Your task to perform on an android device: Open Youtube and go to "Your channel" Image 0: 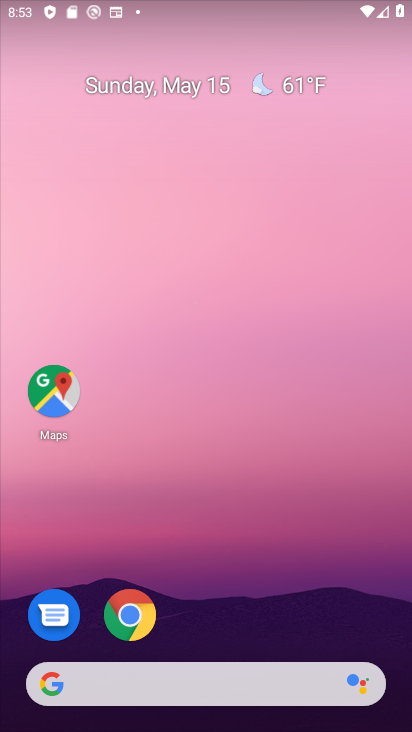
Step 0: drag from (271, 583) to (219, 18)
Your task to perform on an android device: Open Youtube and go to "Your channel" Image 1: 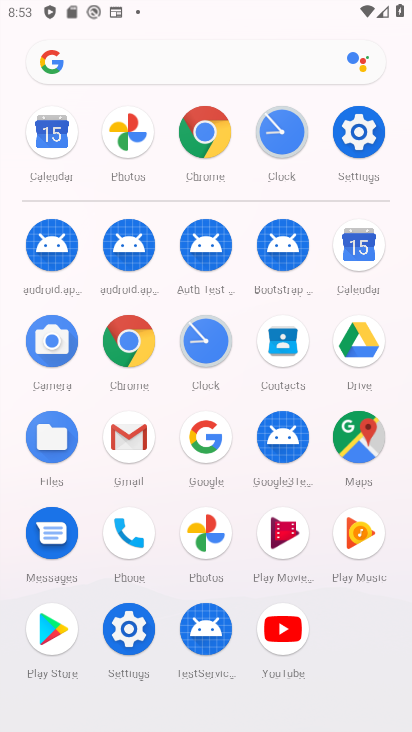
Step 1: drag from (7, 590) to (9, 350)
Your task to perform on an android device: Open Youtube and go to "Your channel" Image 2: 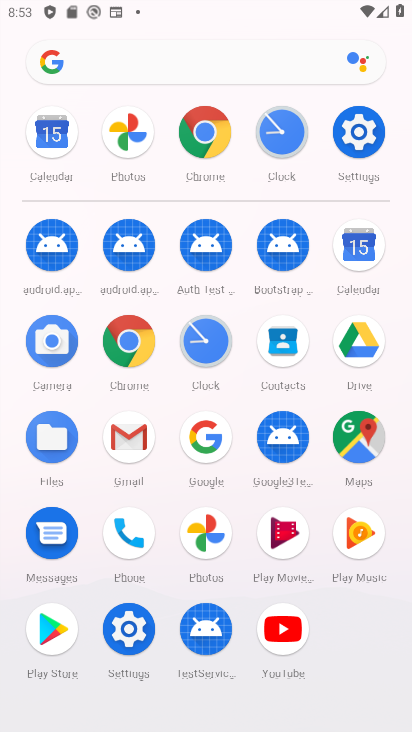
Step 2: click (283, 624)
Your task to perform on an android device: Open Youtube and go to "Your channel" Image 3: 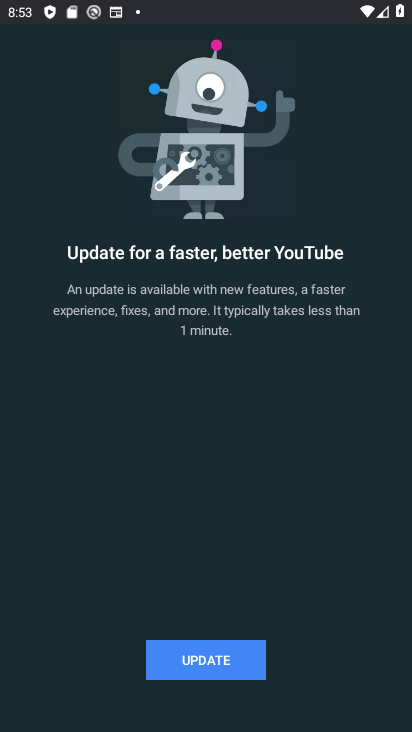
Step 3: click (240, 658)
Your task to perform on an android device: Open Youtube and go to "Your channel" Image 4: 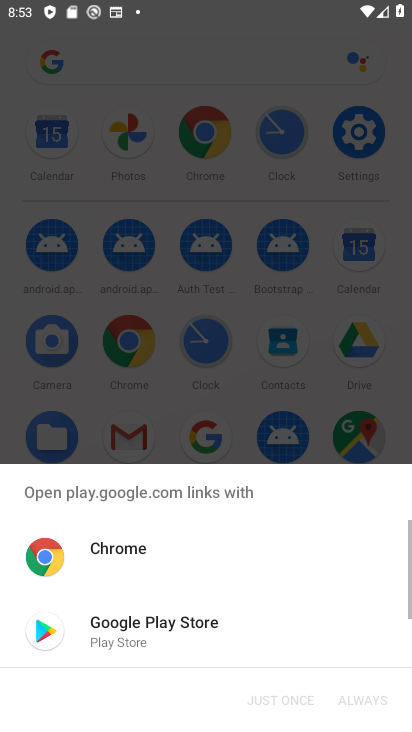
Step 4: click (129, 610)
Your task to perform on an android device: Open Youtube and go to "Your channel" Image 5: 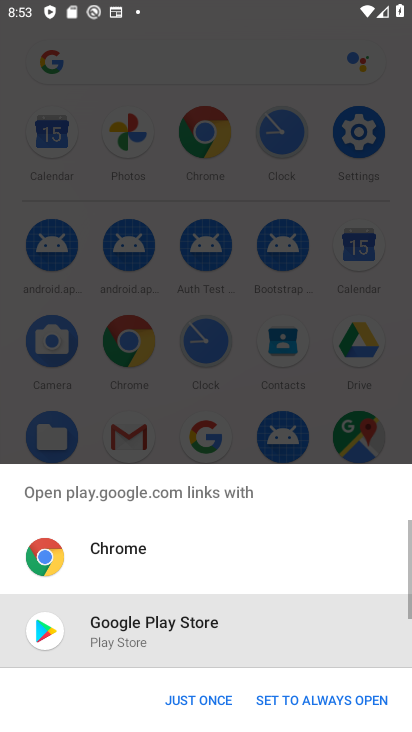
Step 5: click (174, 703)
Your task to perform on an android device: Open Youtube and go to "Your channel" Image 6: 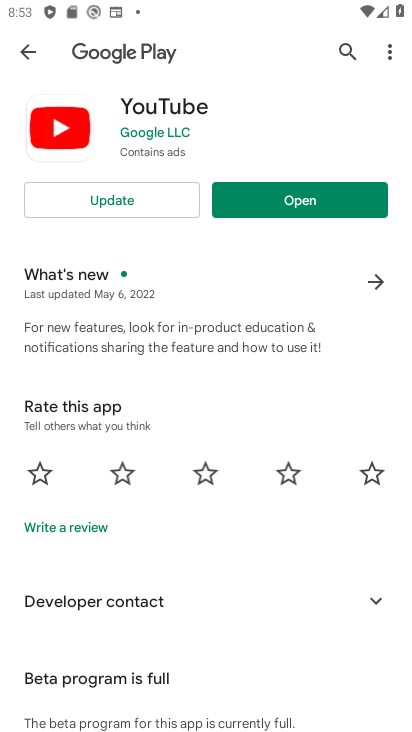
Step 6: click (138, 205)
Your task to perform on an android device: Open Youtube and go to "Your channel" Image 7: 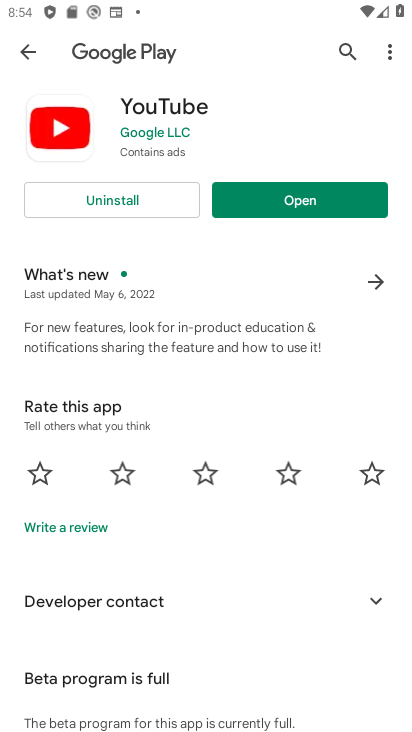
Step 7: click (256, 209)
Your task to perform on an android device: Open Youtube and go to "Your channel" Image 8: 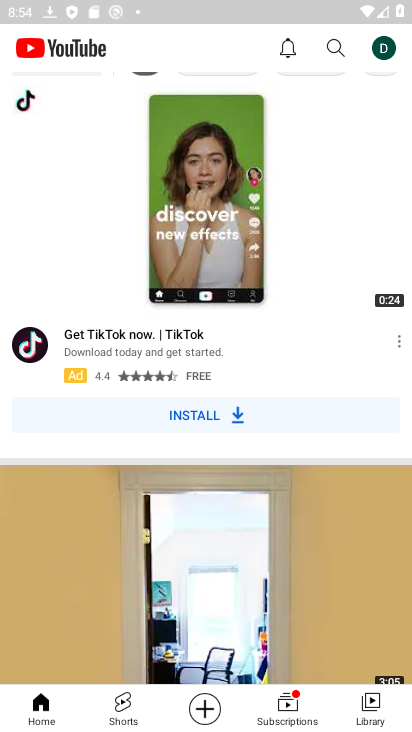
Step 8: click (367, 703)
Your task to perform on an android device: Open Youtube and go to "Your channel" Image 9: 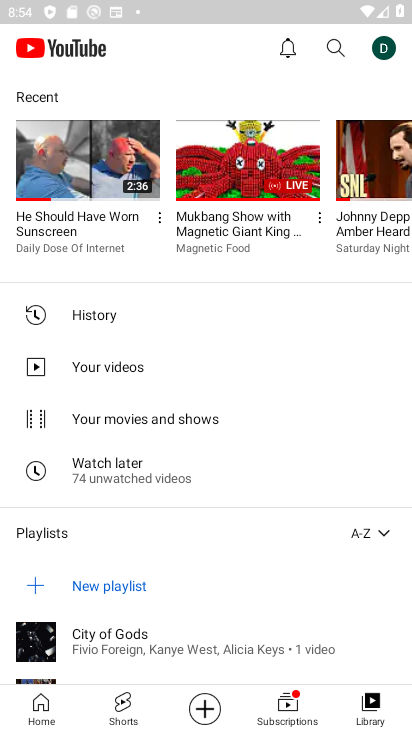
Step 9: click (138, 365)
Your task to perform on an android device: Open Youtube and go to "Your channel" Image 10: 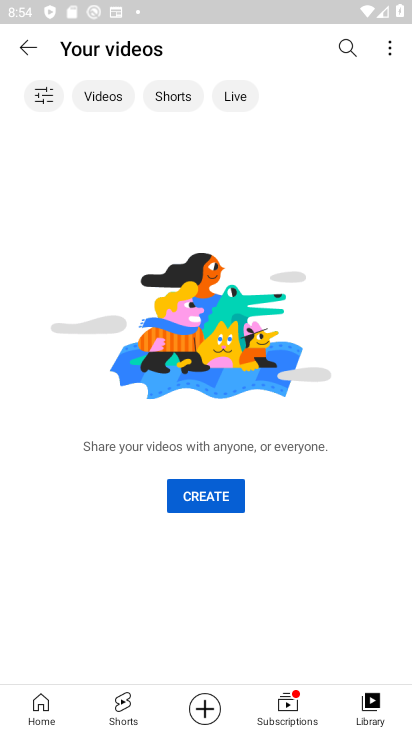
Step 10: drag from (298, 498) to (319, 219)
Your task to perform on an android device: Open Youtube and go to "Your channel" Image 11: 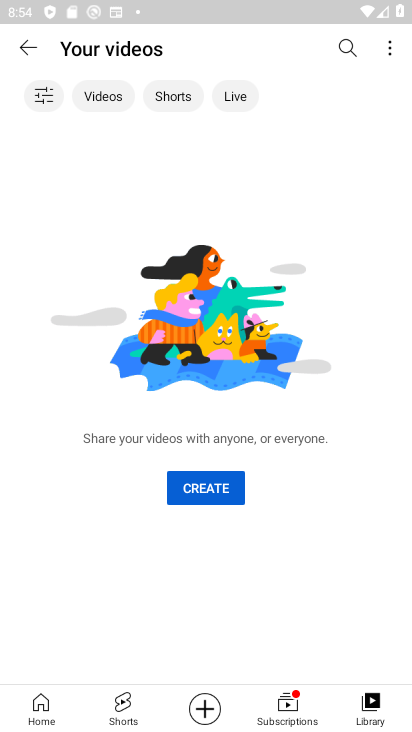
Step 11: click (30, 47)
Your task to perform on an android device: Open Youtube and go to "Your channel" Image 12: 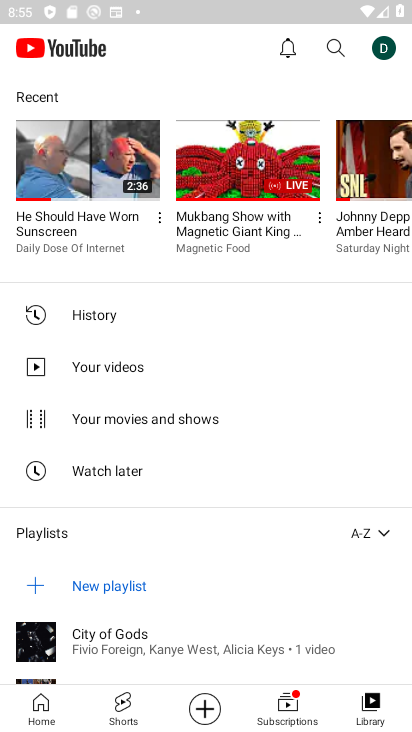
Step 12: click (123, 366)
Your task to perform on an android device: Open Youtube and go to "Your channel" Image 13: 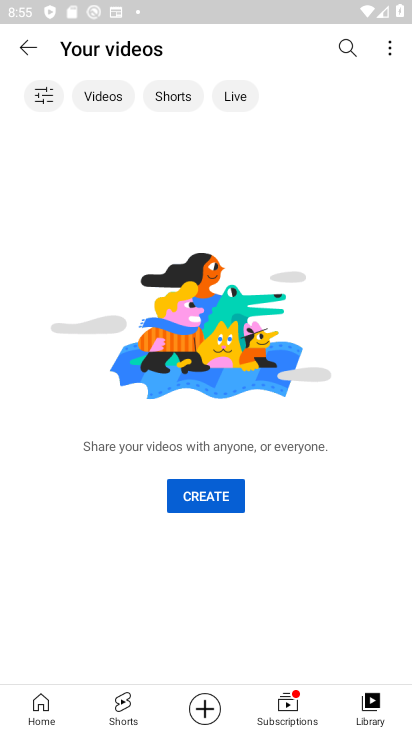
Step 13: task complete